Your task to perform on an android device: open a new tab in the chrome app Image 0: 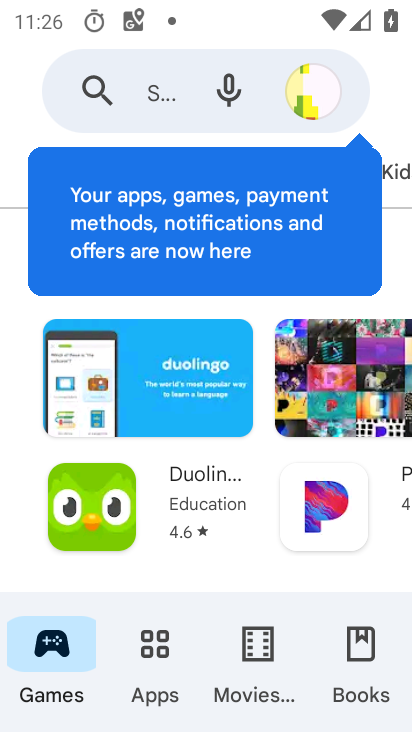
Step 0: press home button
Your task to perform on an android device: open a new tab in the chrome app Image 1: 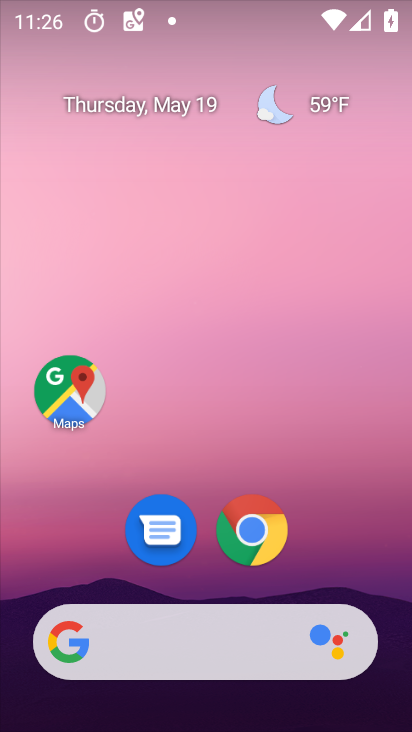
Step 1: drag from (363, 546) to (321, 37)
Your task to perform on an android device: open a new tab in the chrome app Image 2: 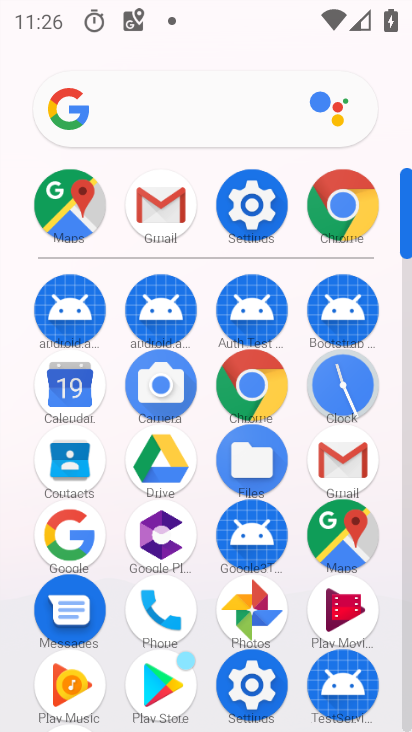
Step 2: click (240, 389)
Your task to perform on an android device: open a new tab in the chrome app Image 3: 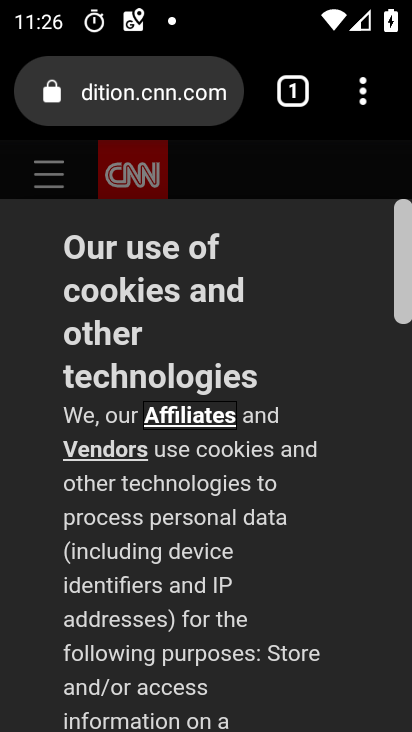
Step 3: drag from (374, 108) to (4, 192)
Your task to perform on an android device: open a new tab in the chrome app Image 4: 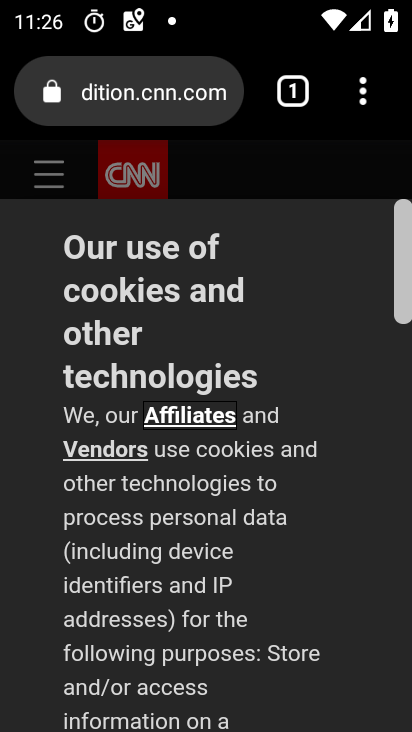
Step 4: click (289, 109)
Your task to perform on an android device: open a new tab in the chrome app Image 5: 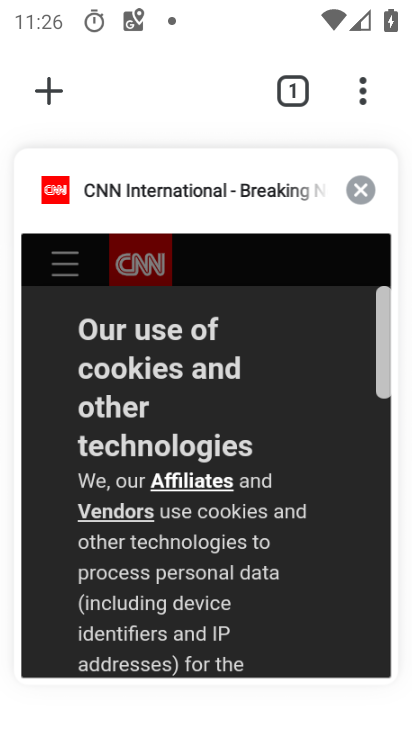
Step 5: click (42, 86)
Your task to perform on an android device: open a new tab in the chrome app Image 6: 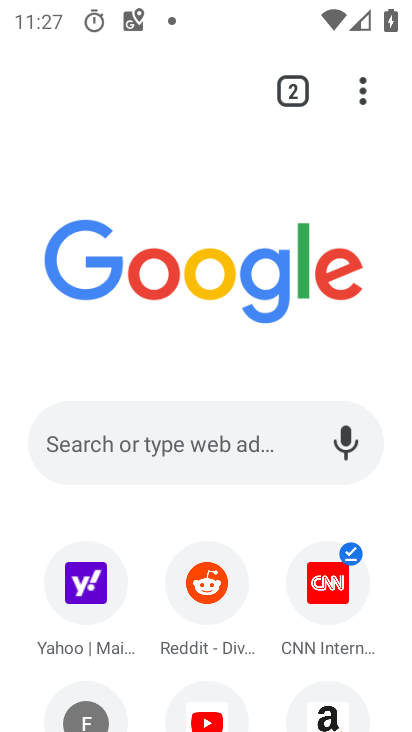
Step 6: task complete